Your task to perform on an android device: What's on my calendar today? Image 0: 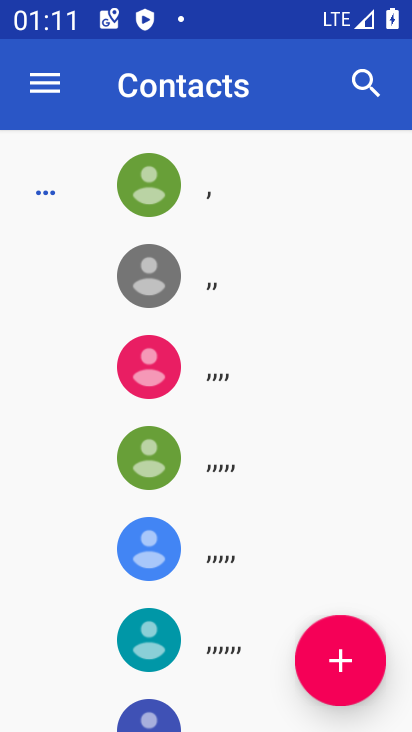
Step 0: press home button
Your task to perform on an android device: What's on my calendar today? Image 1: 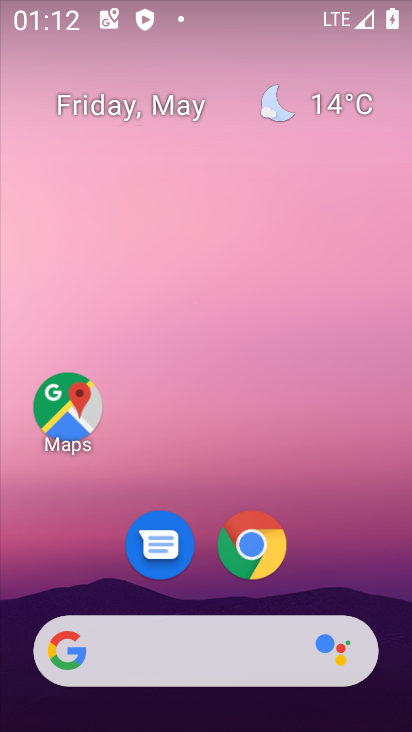
Step 1: drag from (306, 575) to (283, 74)
Your task to perform on an android device: What's on my calendar today? Image 2: 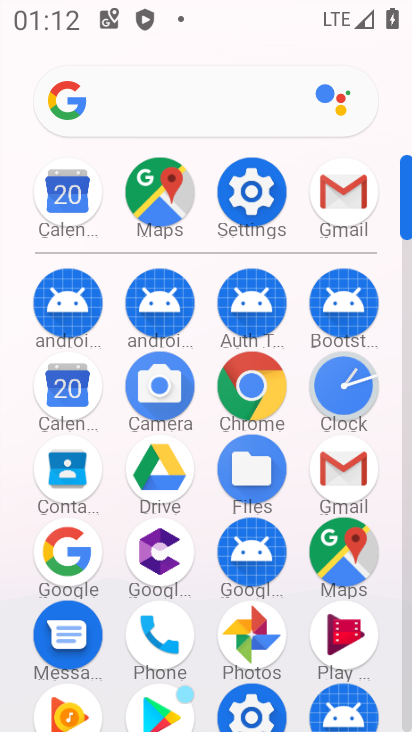
Step 2: click (63, 217)
Your task to perform on an android device: What's on my calendar today? Image 3: 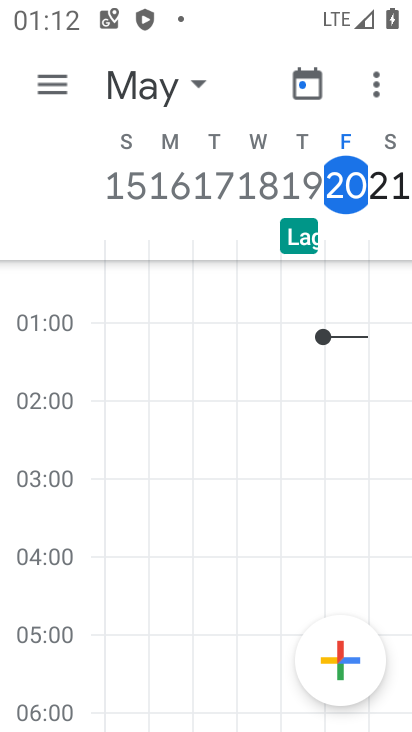
Step 3: click (58, 83)
Your task to perform on an android device: What's on my calendar today? Image 4: 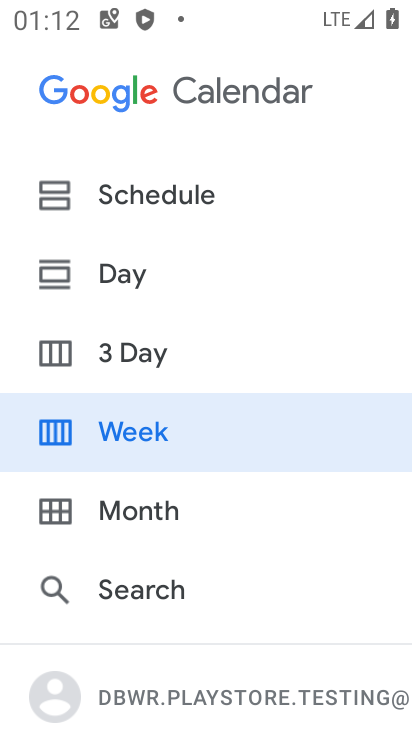
Step 4: click (165, 207)
Your task to perform on an android device: What's on my calendar today? Image 5: 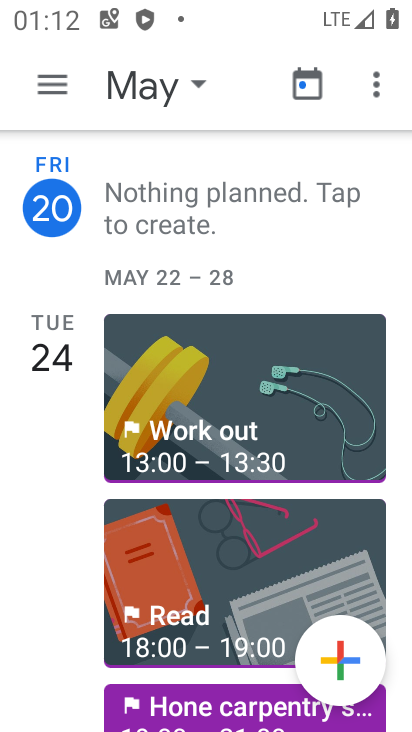
Step 5: task complete